Your task to perform on an android device: Open wifi settings Image 0: 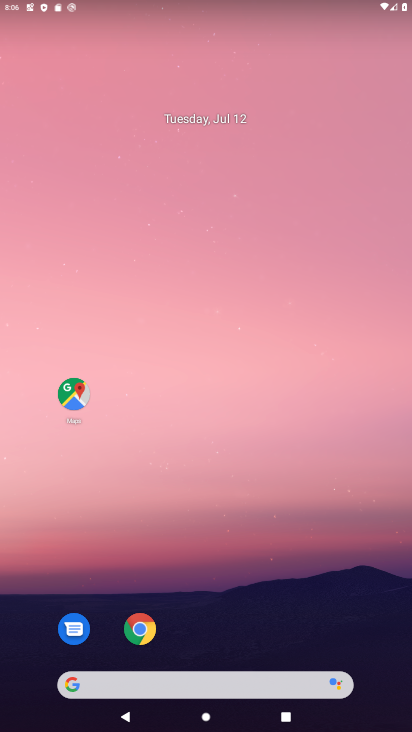
Step 0: drag from (243, 503) to (294, 147)
Your task to perform on an android device: Open wifi settings Image 1: 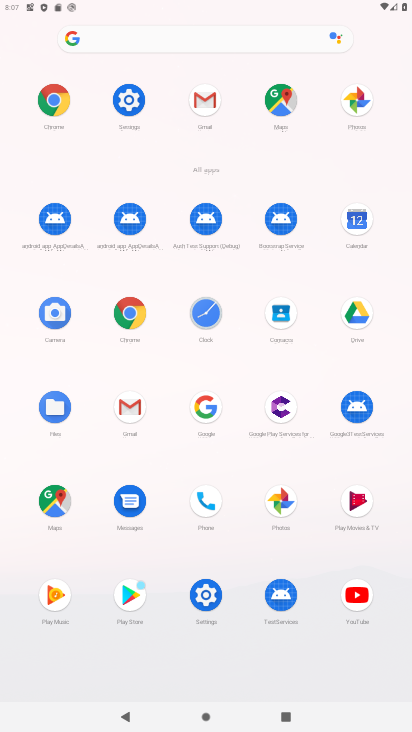
Step 1: click (136, 101)
Your task to perform on an android device: Open wifi settings Image 2: 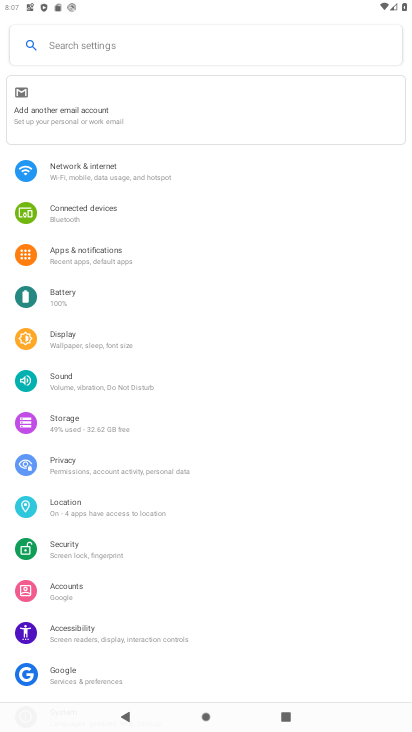
Step 2: click (97, 171)
Your task to perform on an android device: Open wifi settings Image 3: 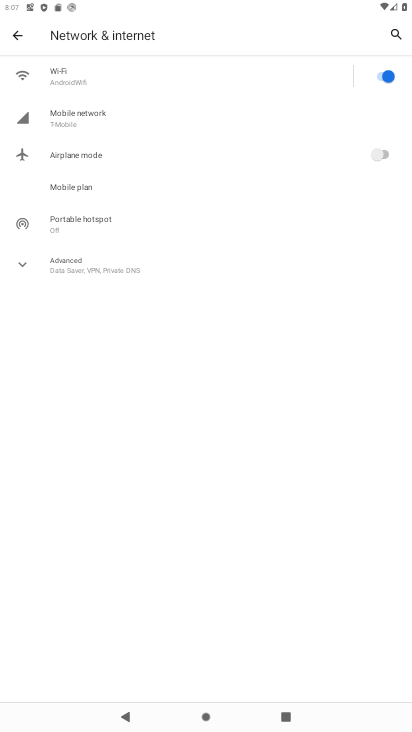
Step 3: click (102, 83)
Your task to perform on an android device: Open wifi settings Image 4: 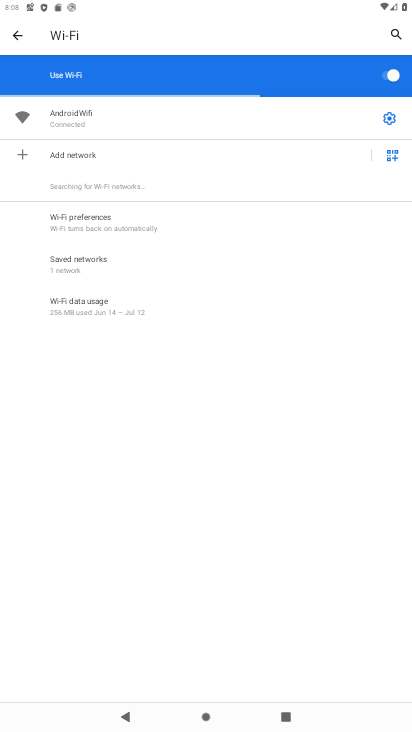
Step 4: task complete